Your task to perform on an android device: open app "Upside-Cash back on gas & food" Image 0: 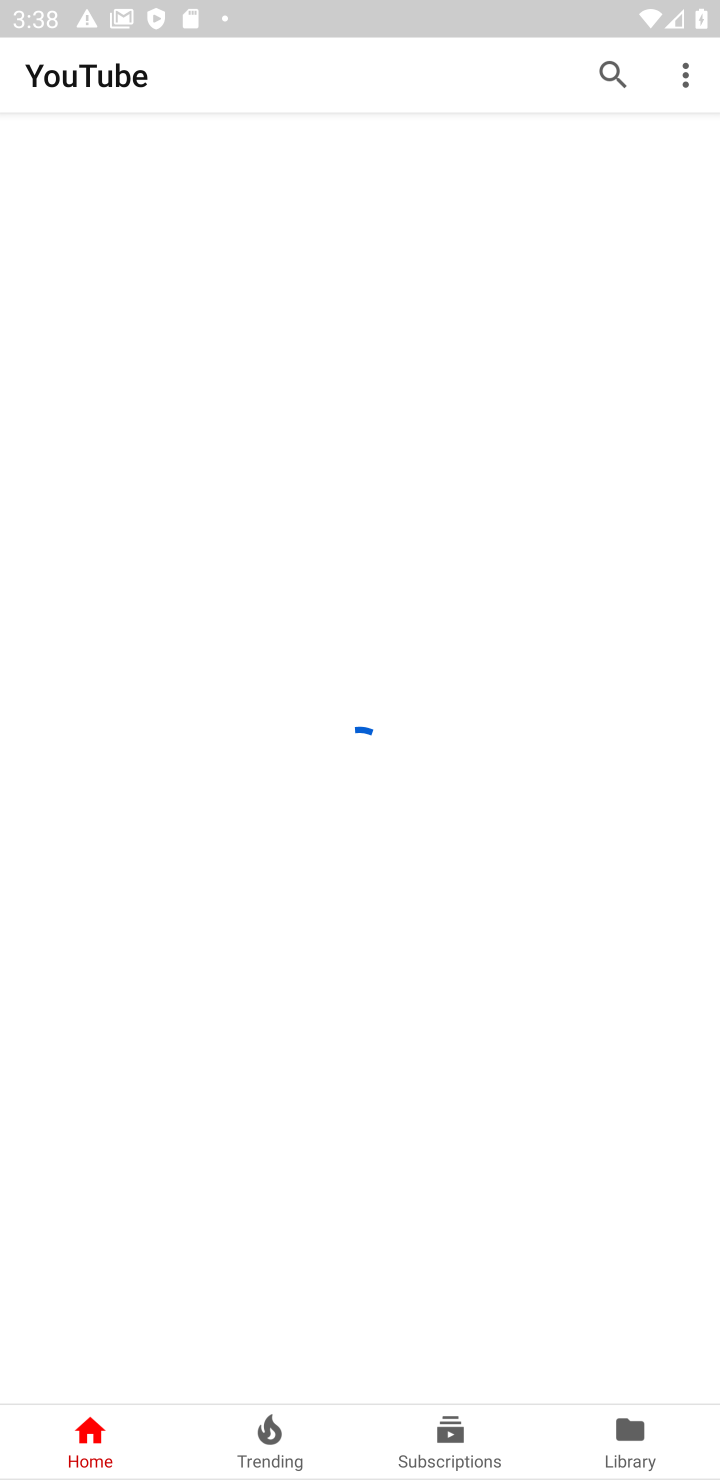
Step 0: press home button
Your task to perform on an android device: open app "Upside-Cash back on gas & food" Image 1: 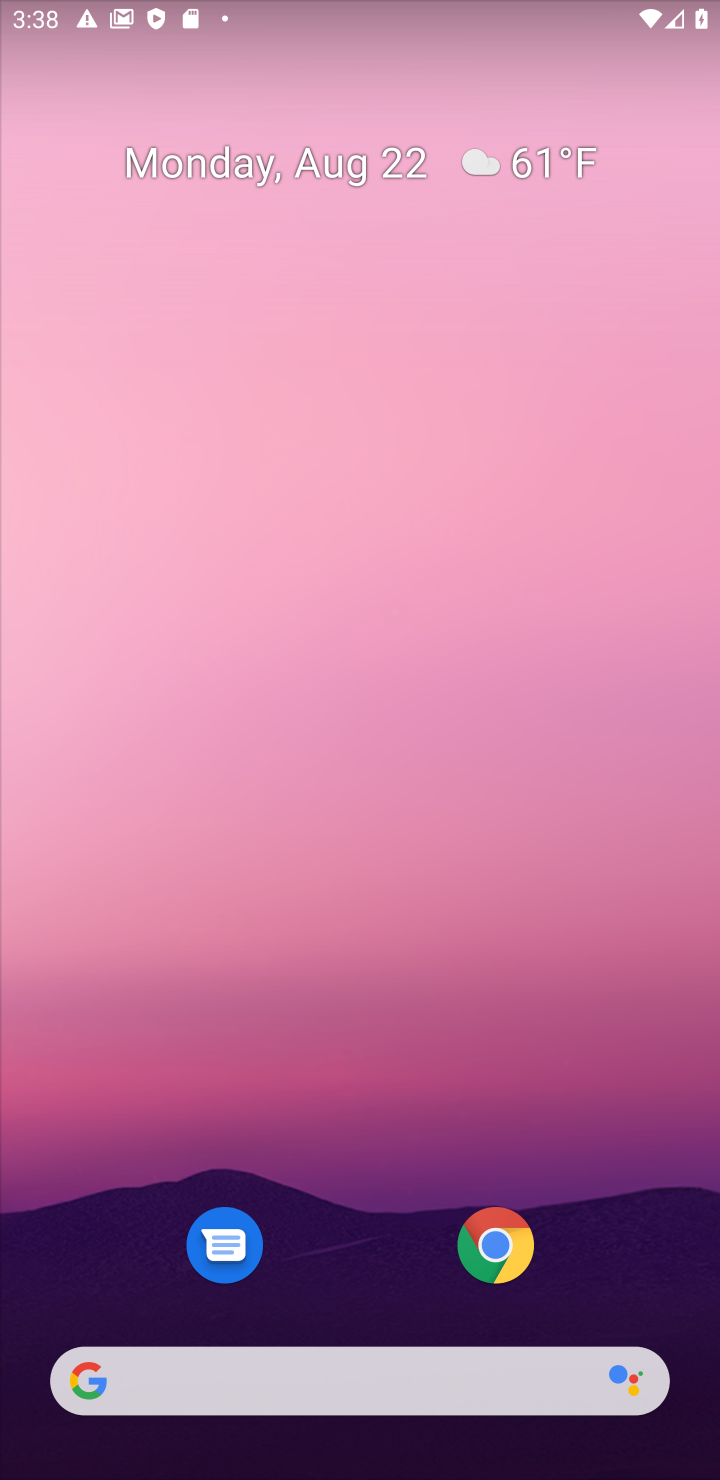
Step 1: drag from (605, 1280) to (670, 163)
Your task to perform on an android device: open app "Upside-Cash back on gas & food" Image 2: 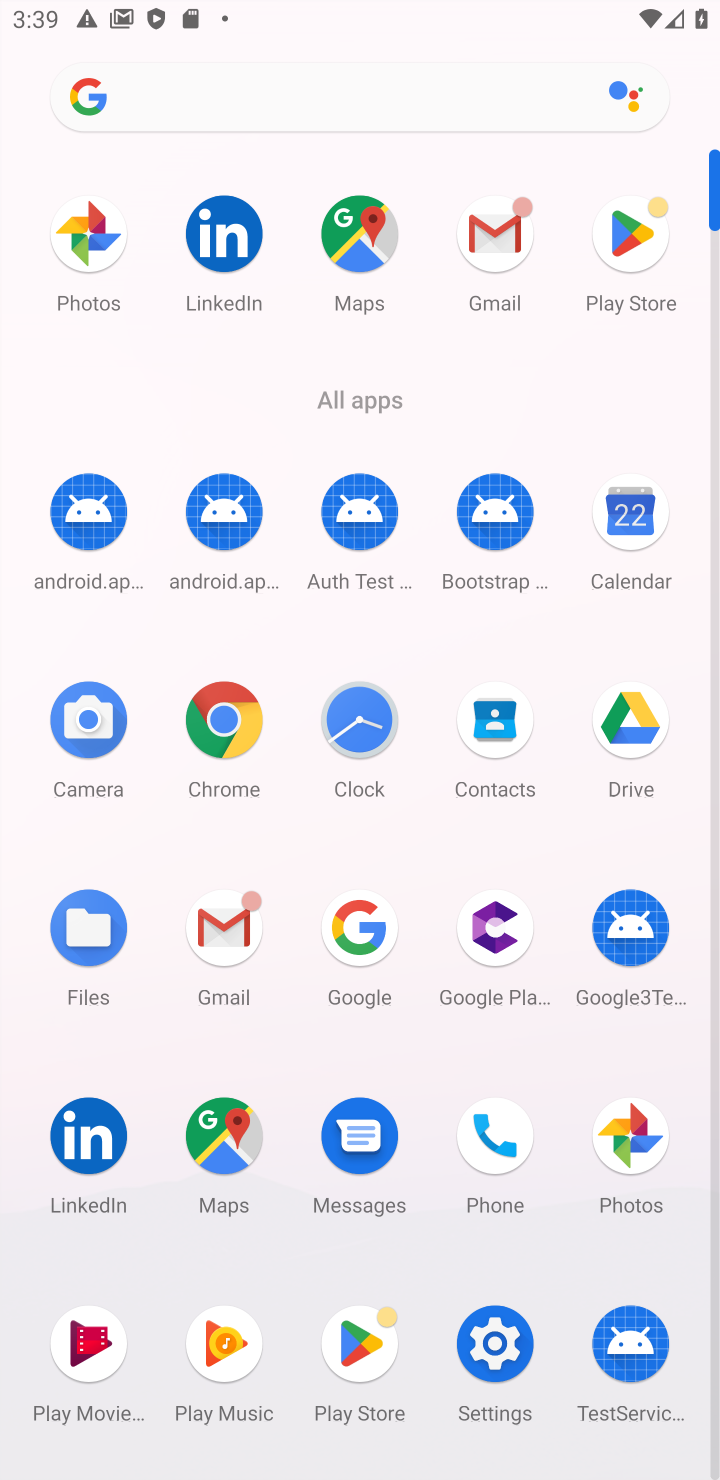
Step 2: click (619, 233)
Your task to perform on an android device: open app "Upside-Cash back on gas & food" Image 3: 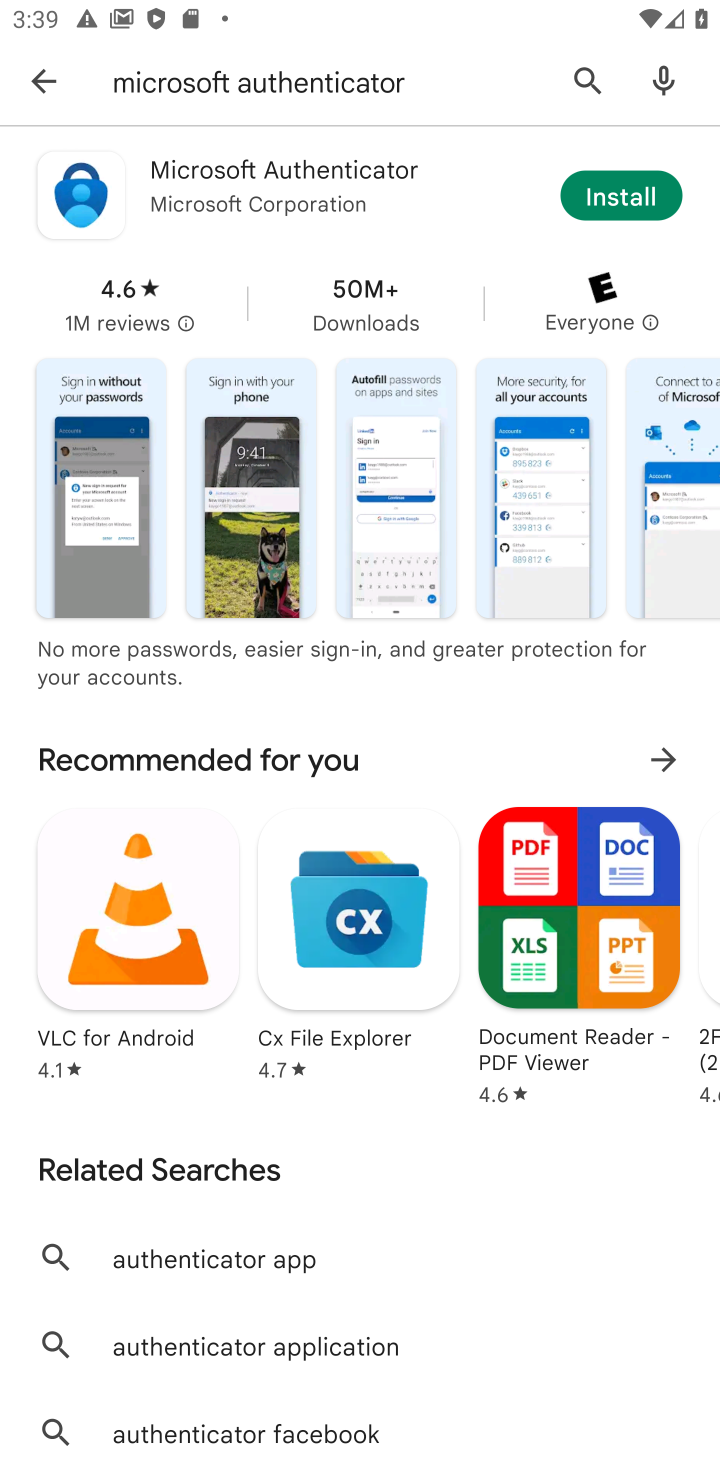
Step 3: press back button
Your task to perform on an android device: open app "Upside-Cash back on gas & food" Image 4: 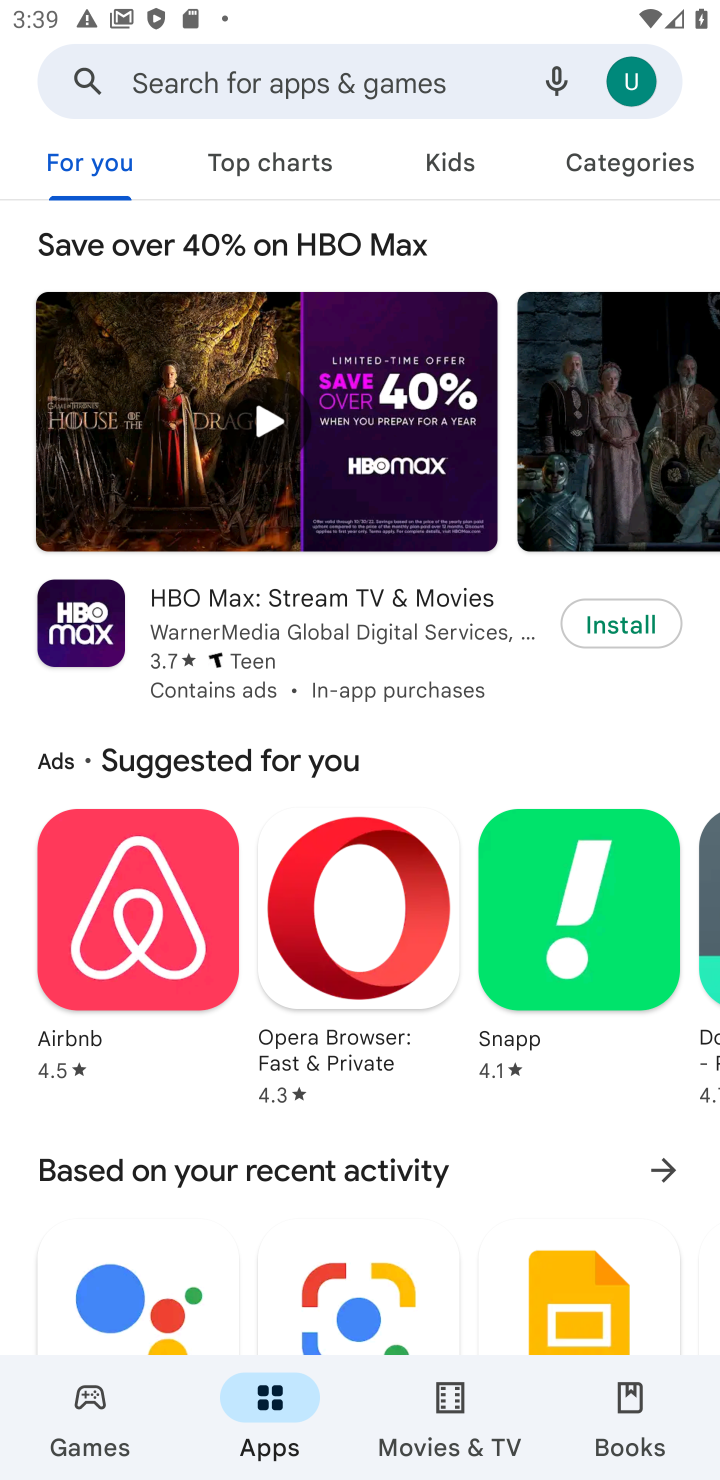
Step 4: click (444, 68)
Your task to perform on an android device: open app "Upside-Cash back on gas & food" Image 5: 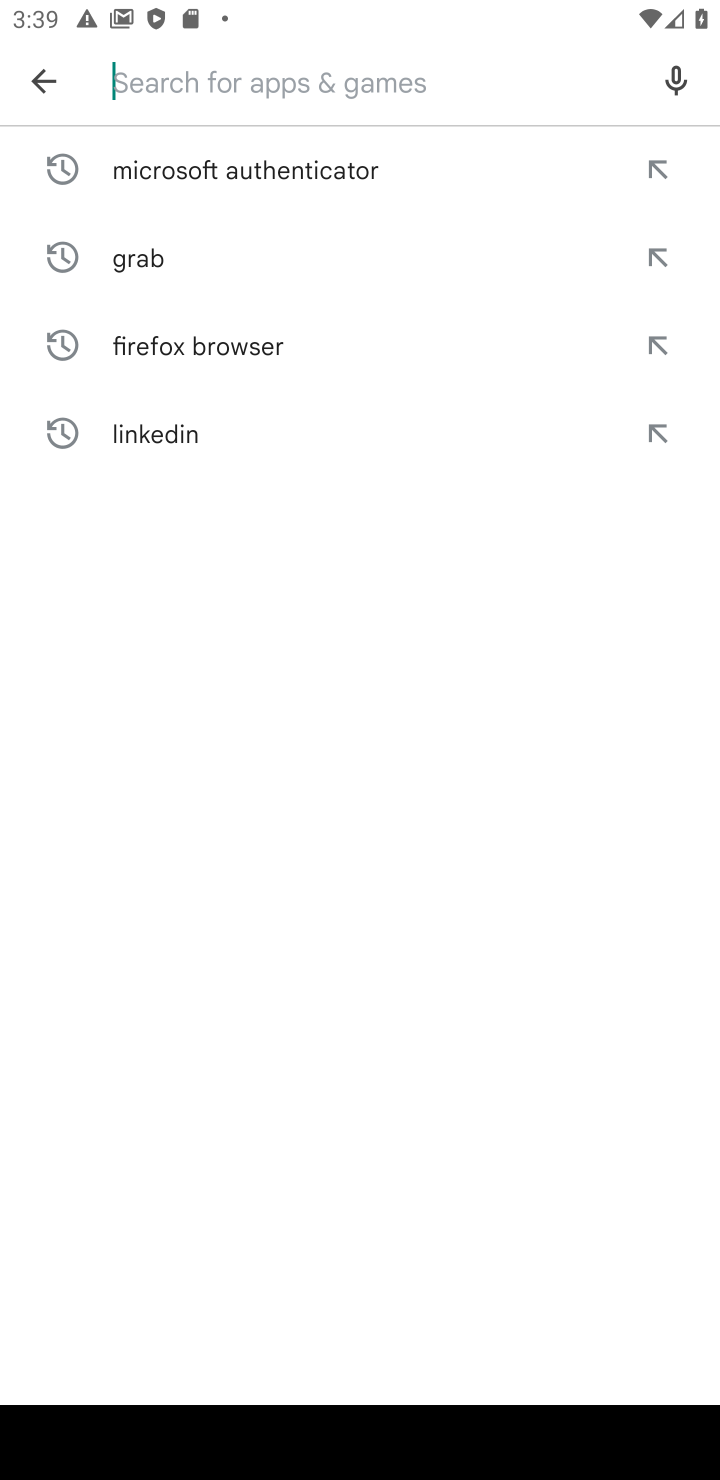
Step 5: press enter
Your task to perform on an android device: open app "Upside-Cash back on gas & food" Image 6: 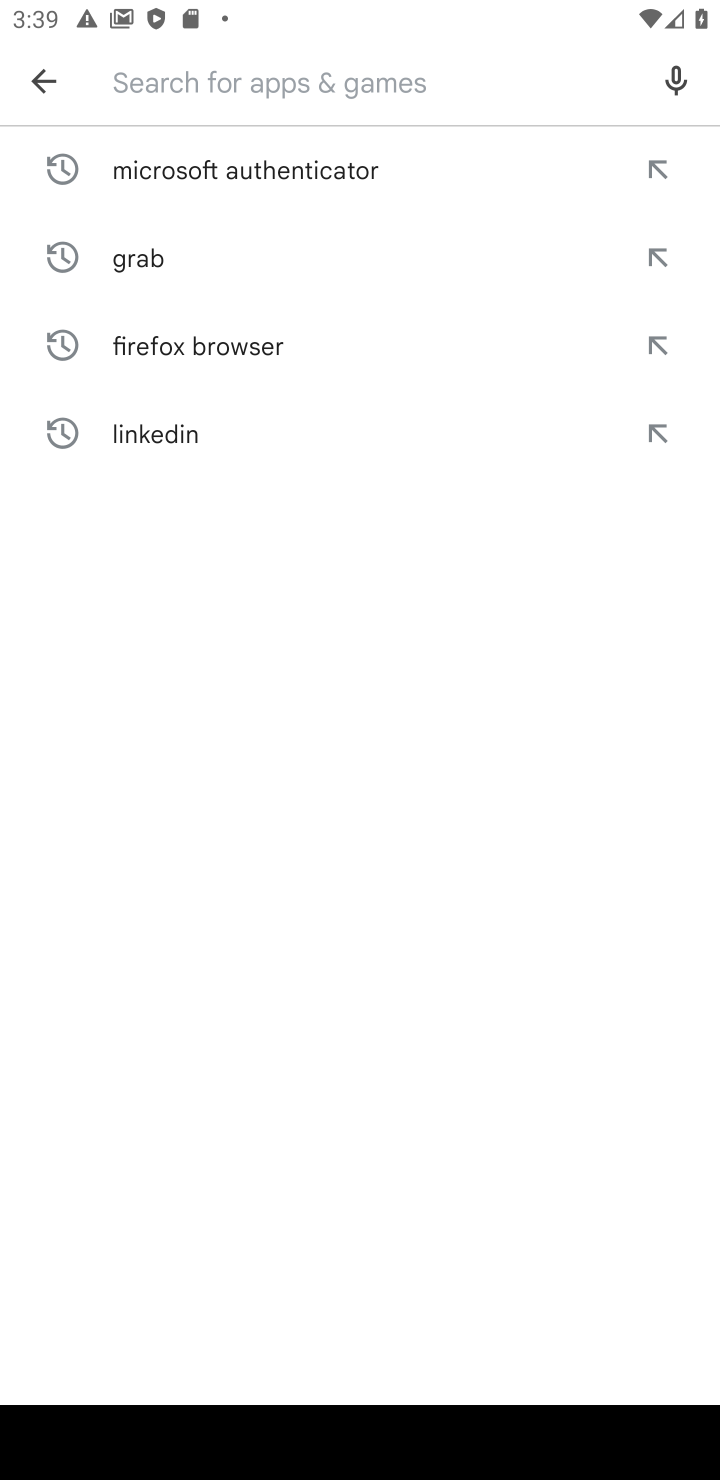
Step 6: type "Upside-Cash back on gas & food"
Your task to perform on an android device: open app "Upside-Cash back on gas & food" Image 7: 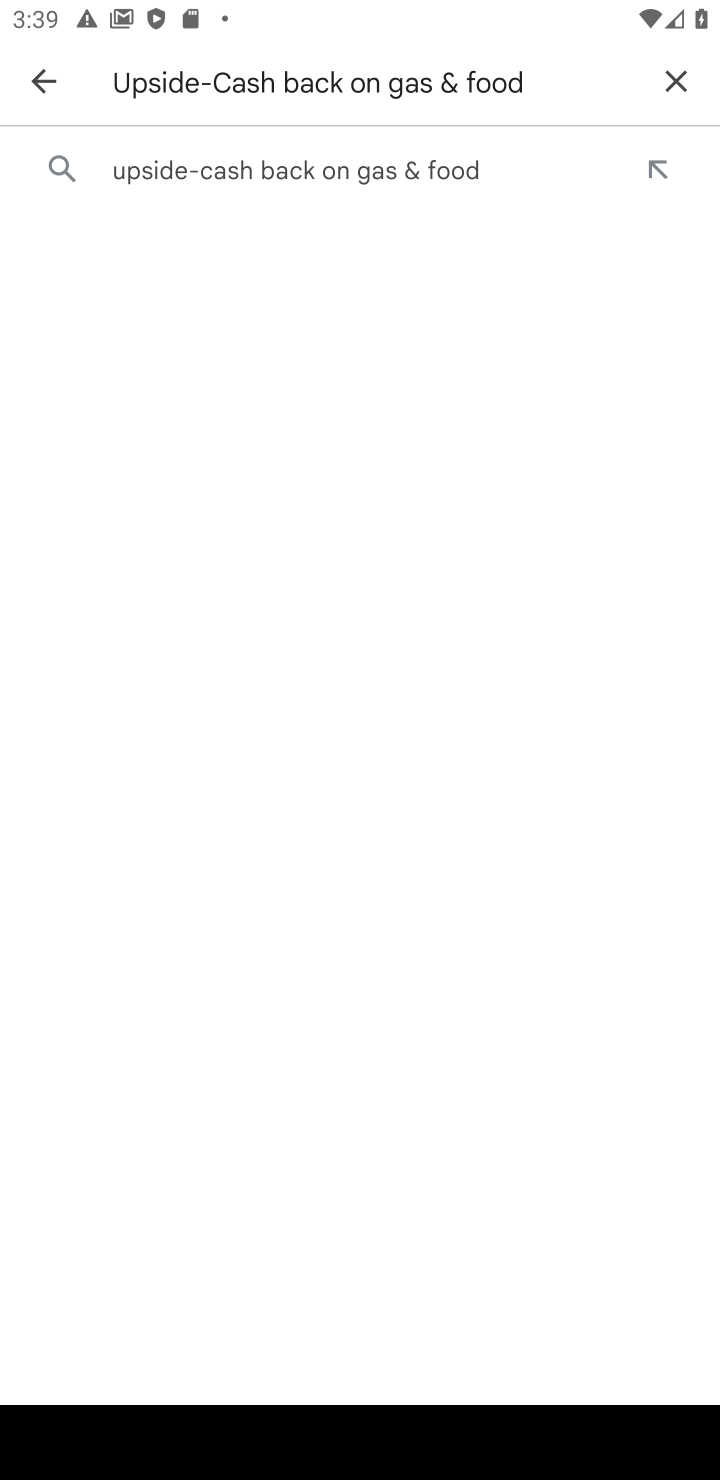
Step 7: click (488, 166)
Your task to perform on an android device: open app "Upside-Cash back on gas & food" Image 8: 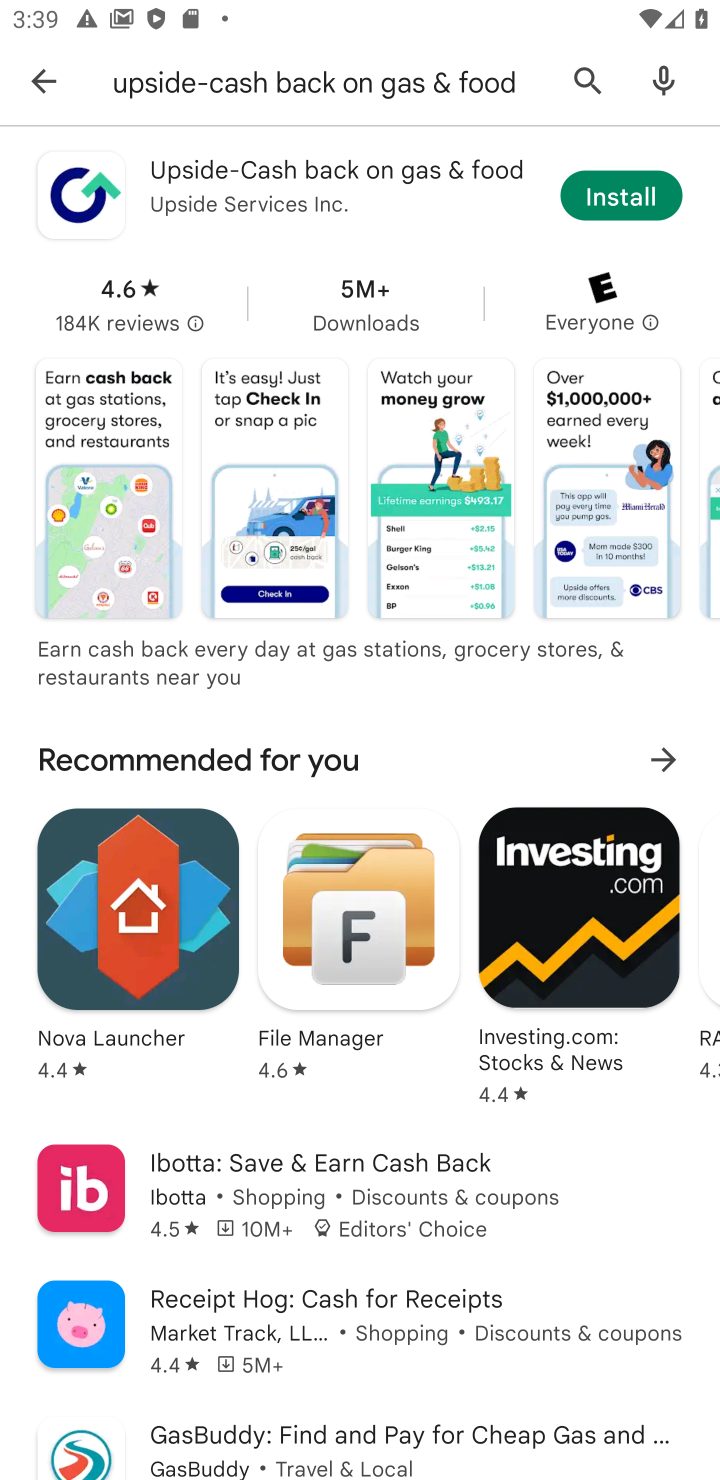
Step 8: task complete